Your task to perform on an android device: Go to ESPN.com Image 0: 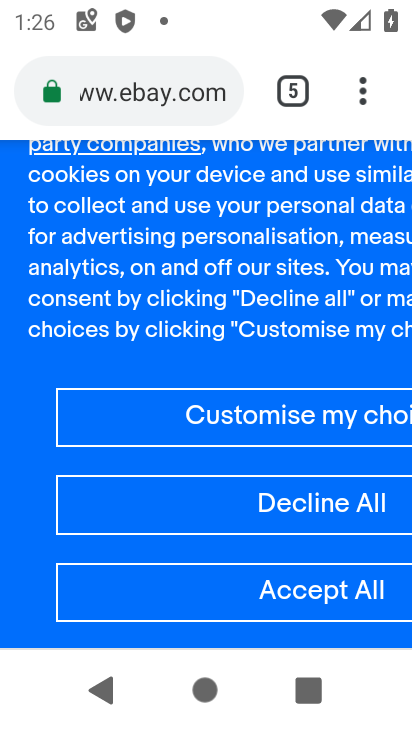
Step 0: press home button
Your task to perform on an android device: Go to ESPN.com Image 1: 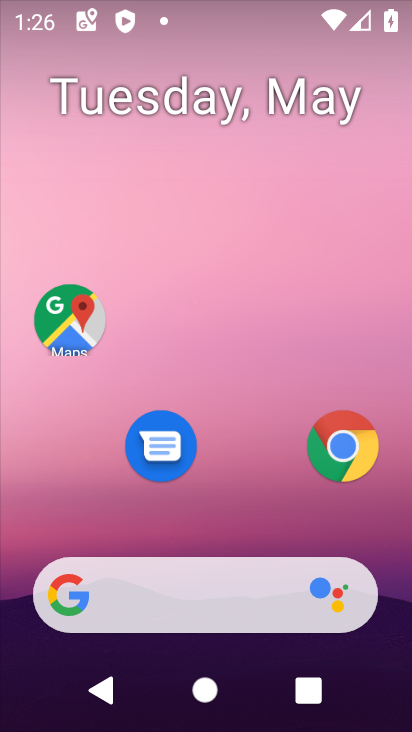
Step 1: click (325, 457)
Your task to perform on an android device: Go to ESPN.com Image 2: 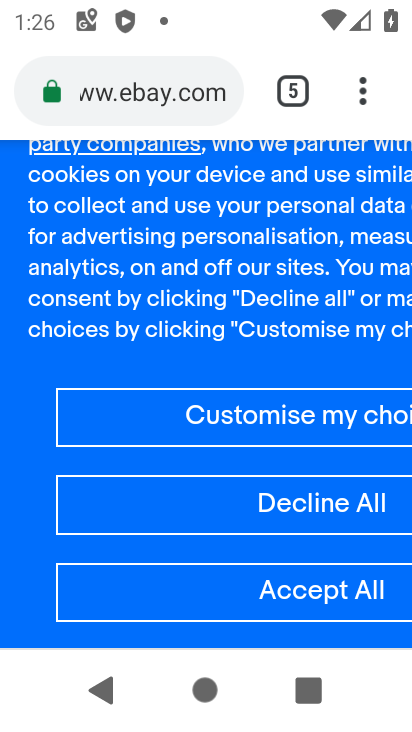
Step 2: click (308, 88)
Your task to perform on an android device: Go to ESPN.com Image 3: 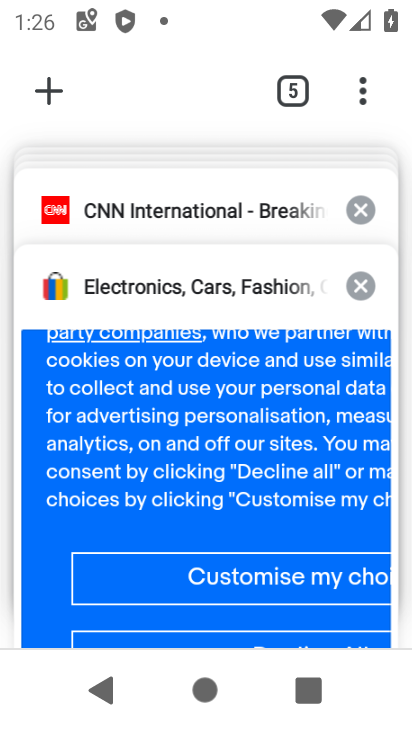
Step 3: click (41, 100)
Your task to perform on an android device: Go to ESPN.com Image 4: 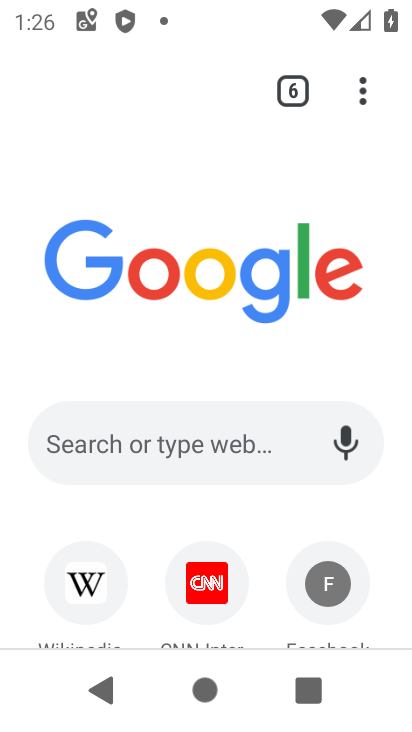
Step 4: drag from (229, 598) to (123, 174)
Your task to perform on an android device: Go to ESPN.com Image 5: 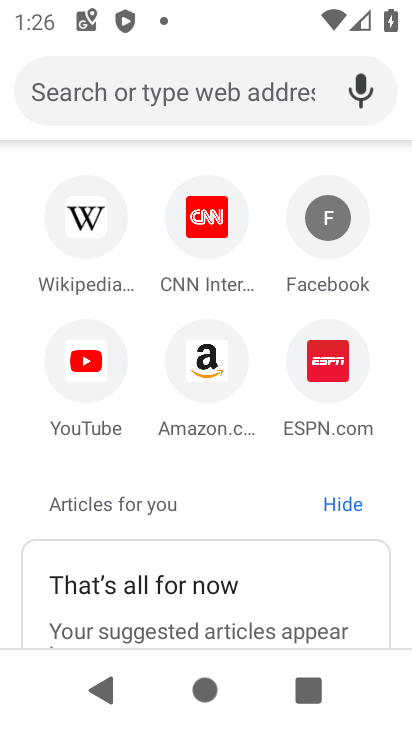
Step 5: click (312, 371)
Your task to perform on an android device: Go to ESPN.com Image 6: 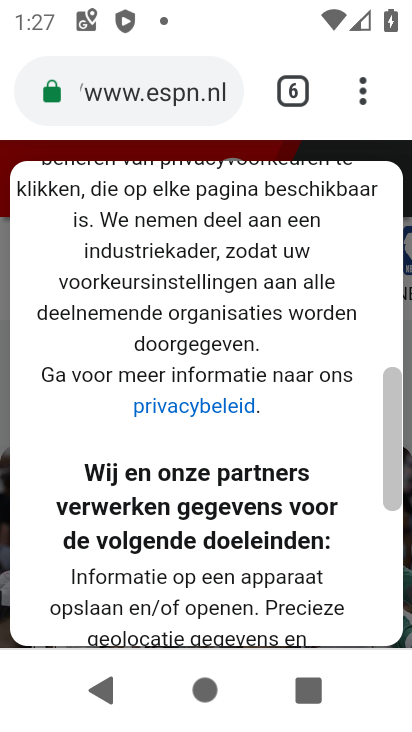
Step 6: task complete